Your task to perform on an android device: make emails show in primary in the gmail app Image 0: 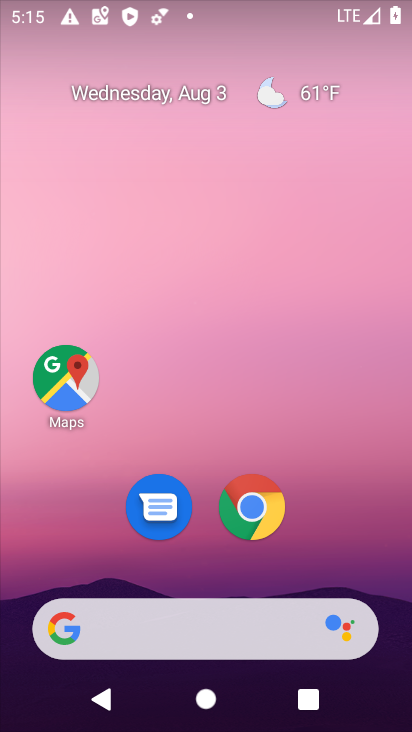
Step 0: drag from (322, 505) to (300, 51)
Your task to perform on an android device: make emails show in primary in the gmail app Image 1: 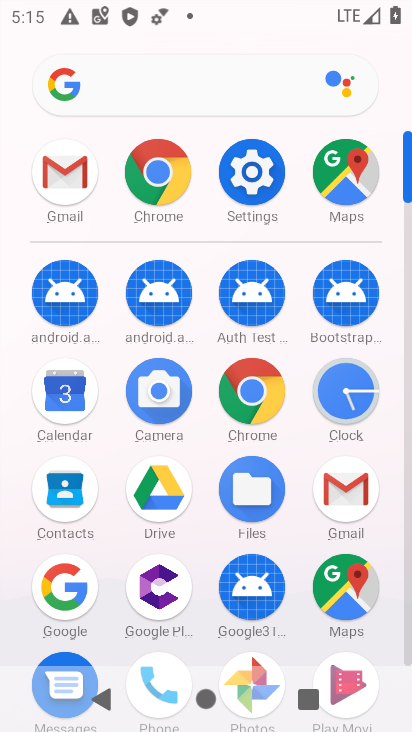
Step 1: click (67, 165)
Your task to perform on an android device: make emails show in primary in the gmail app Image 2: 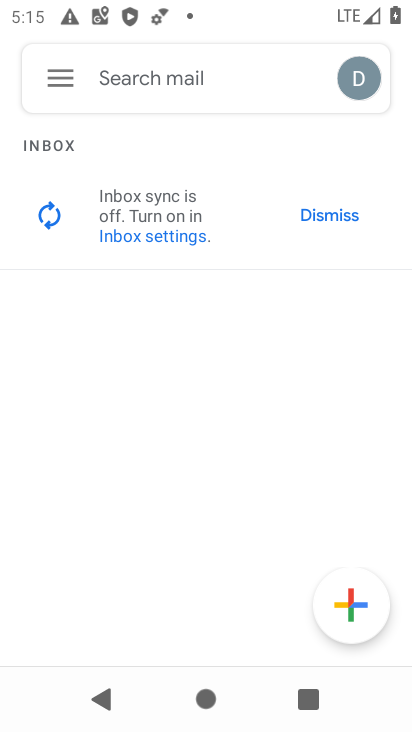
Step 2: click (68, 65)
Your task to perform on an android device: make emails show in primary in the gmail app Image 3: 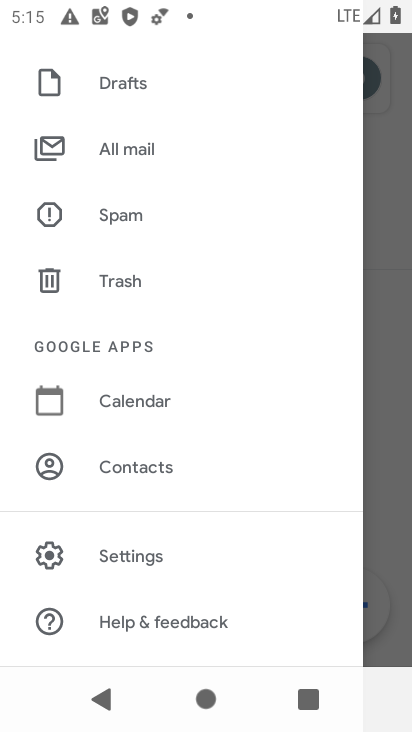
Step 3: click (148, 559)
Your task to perform on an android device: make emails show in primary in the gmail app Image 4: 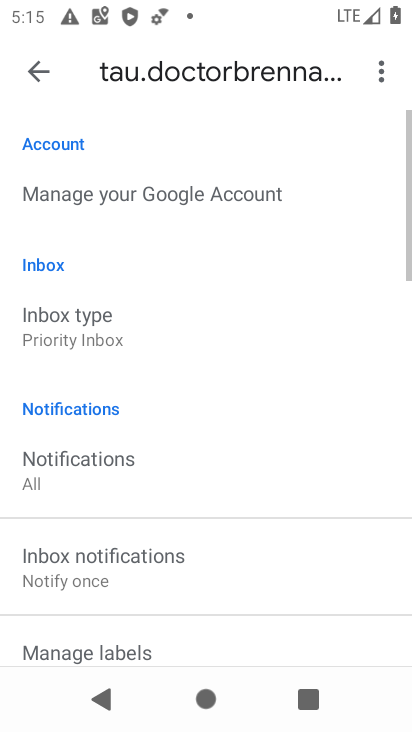
Step 4: drag from (270, 491) to (302, 230)
Your task to perform on an android device: make emails show in primary in the gmail app Image 5: 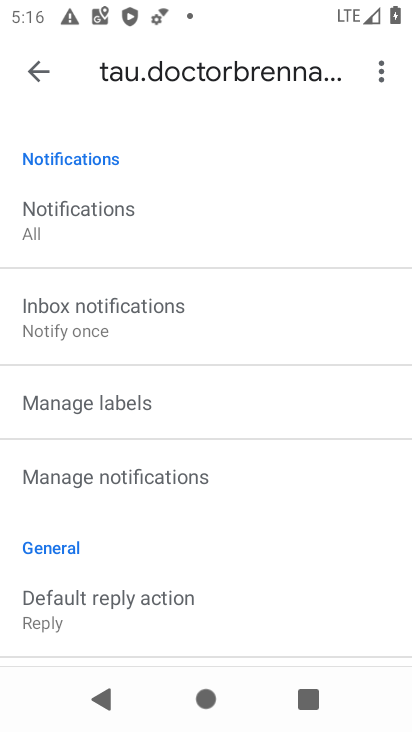
Step 5: drag from (262, 530) to (255, 685)
Your task to perform on an android device: make emails show in primary in the gmail app Image 6: 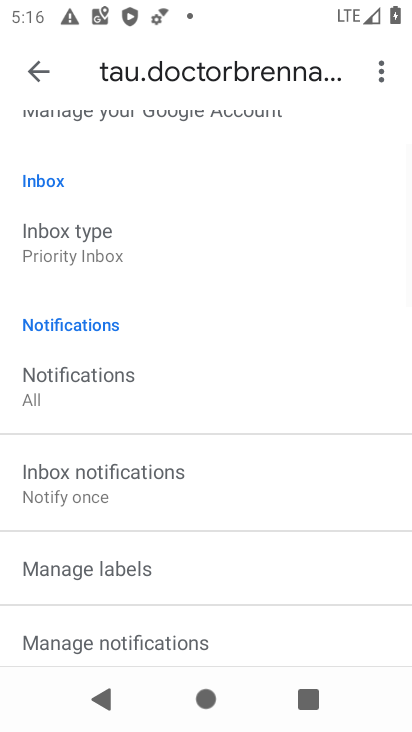
Step 6: drag from (277, 251) to (253, 546)
Your task to perform on an android device: make emails show in primary in the gmail app Image 7: 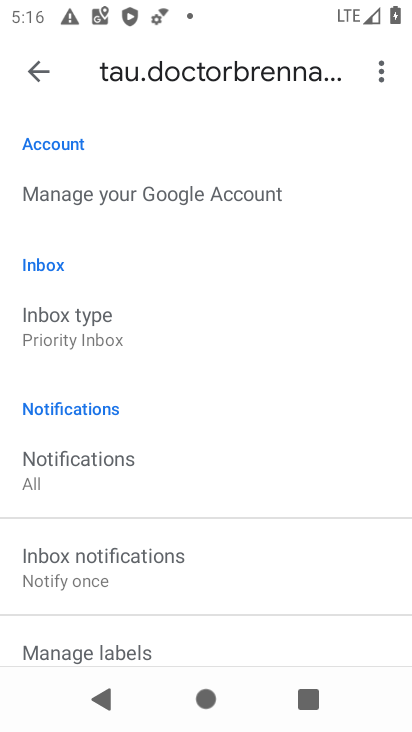
Step 7: click (104, 340)
Your task to perform on an android device: make emails show in primary in the gmail app Image 8: 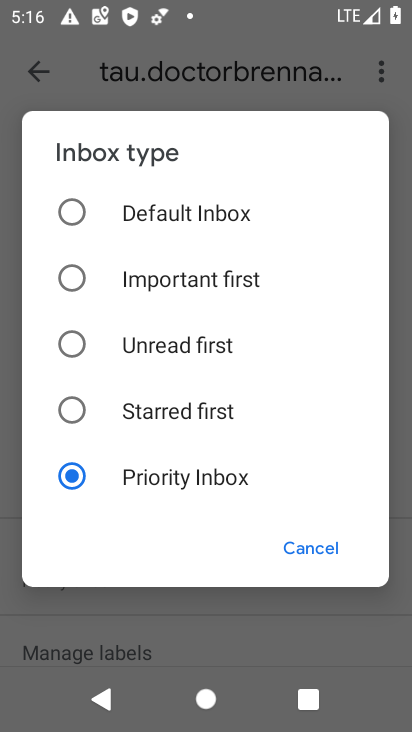
Step 8: click (162, 206)
Your task to perform on an android device: make emails show in primary in the gmail app Image 9: 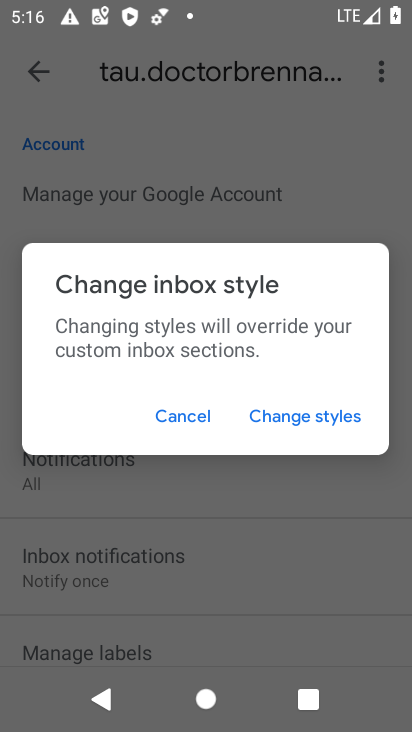
Step 9: click (292, 415)
Your task to perform on an android device: make emails show in primary in the gmail app Image 10: 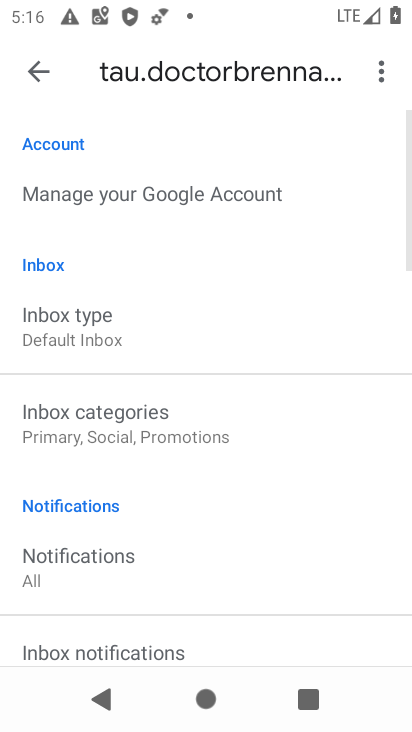
Step 10: click (92, 421)
Your task to perform on an android device: make emails show in primary in the gmail app Image 11: 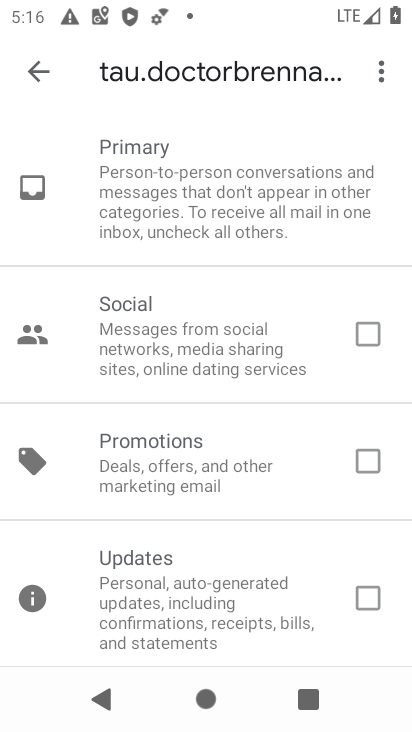
Step 11: task complete